Your task to perform on an android device: show emergency info Image 0: 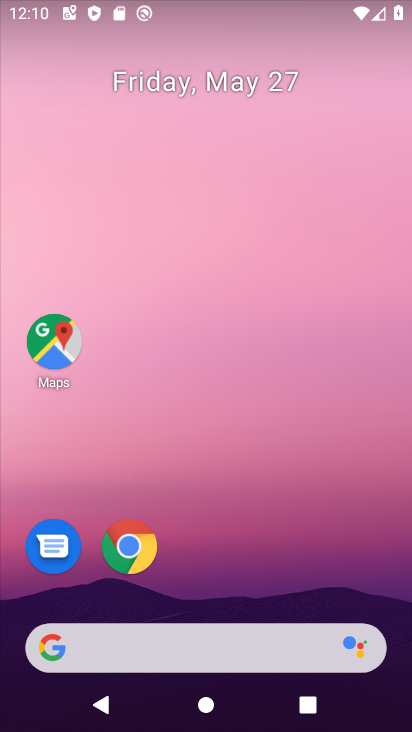
Step 0: drag from (290, 535) to (166, 42)
Your task to perform on an android device: show emergency info Image 1: 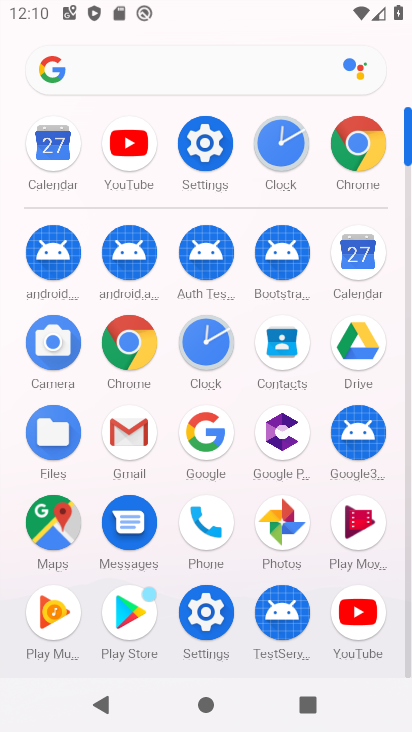
Step 1: click (204, 149)
Your task to perform on an android device: show emergency info Image 2: 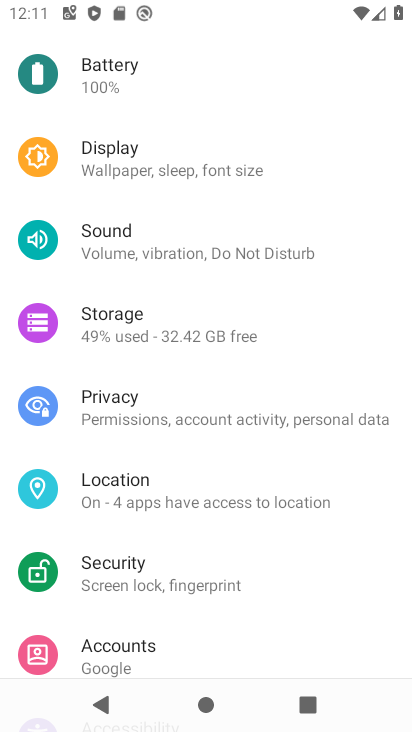
Step 2: drag from (203, 576) to (199, 270)
Your task to perform on an android device: show emergency info Image 3: 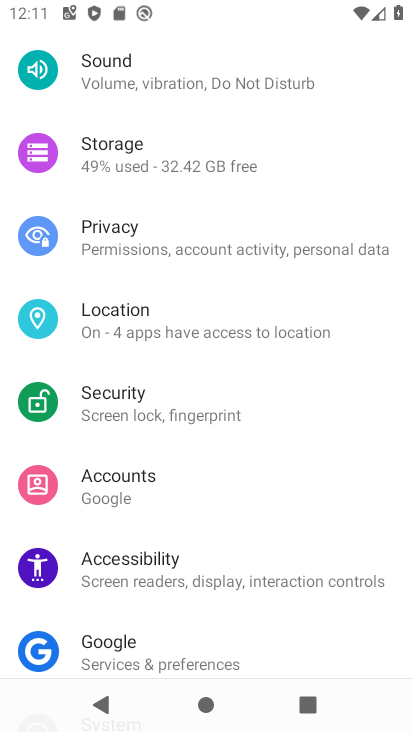
Step 3: drag from (213, 518) to (193, 69)
Your task to perform on an android device: show emergency info Image 4: 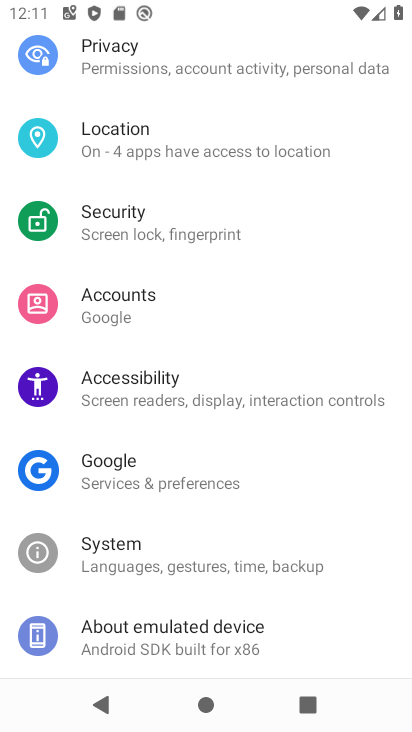
Step 4: drag from (198, 485) to (169, 80)
Your task to perform on an android device: show emergency info Image 5: 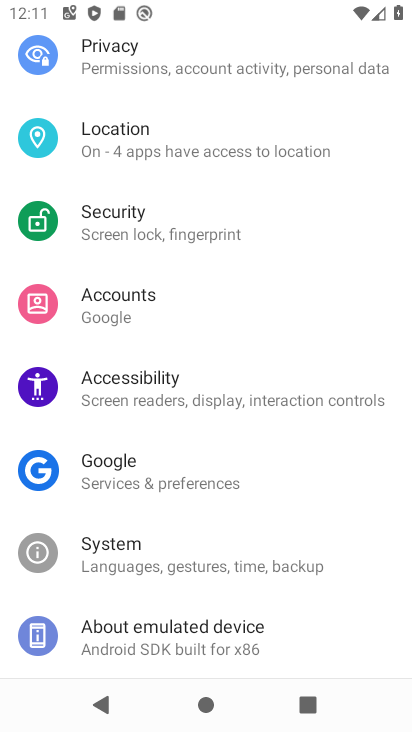
Step 5: click (170, 645)
Your task to perform on an android device: show emergency info Image 6: 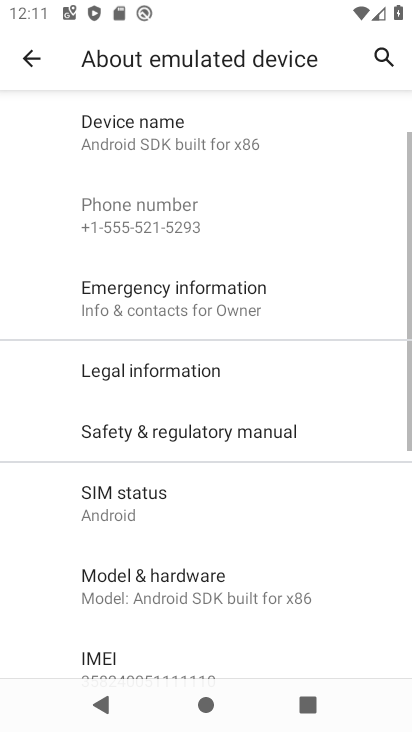
Step 6: click (162, 283)
Your task to perform on an android device: show emergency info Image 7: 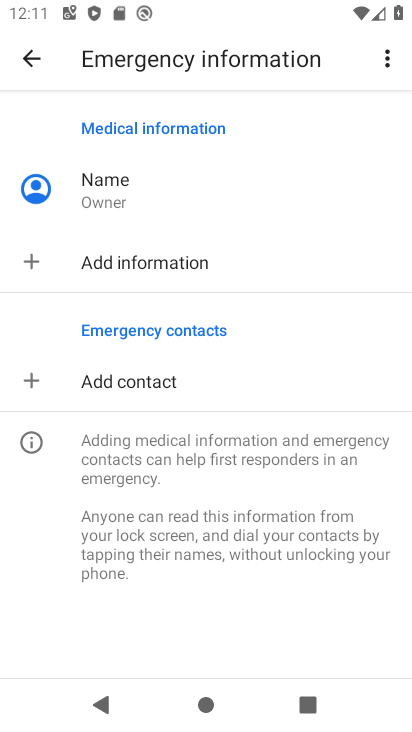
Step 7: task complete